Your task to perform on an android device: What is the recent news? Image 0: 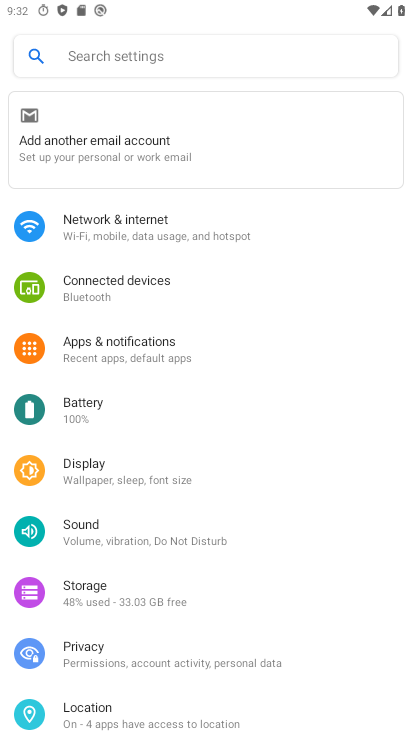
Step 0: press home button
Your task to perform on an android device: What is the recent news? Image 1: 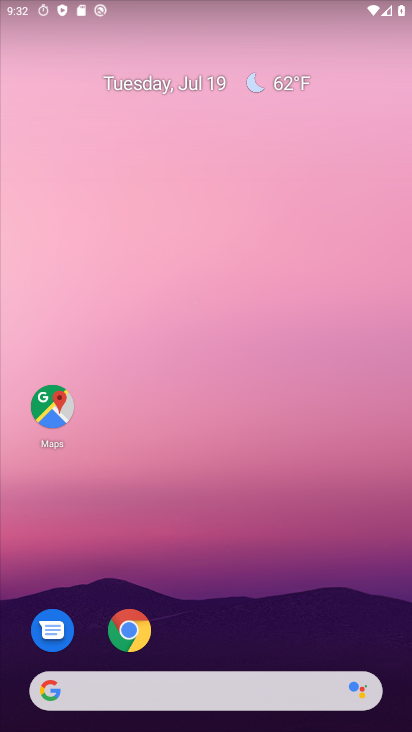
Step 1: drag from (210, 682) to (204, 376)
Your task to perform on an android device: What is the recent news? Image 2: 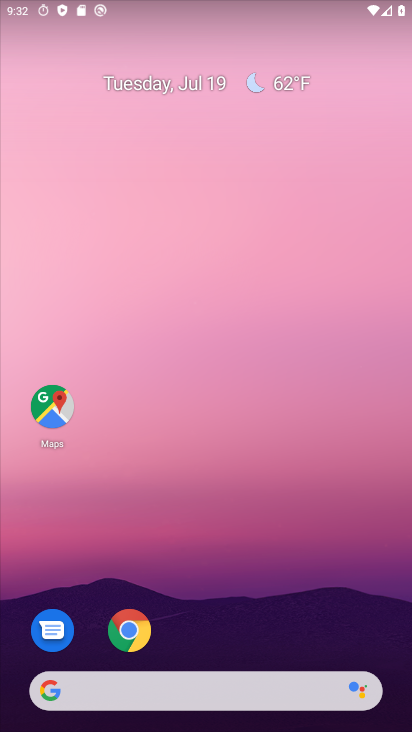
Step 2: drag from (171, 664) to (242, 146)
Your task to perform on an android device: What is the recent news? Image 3: 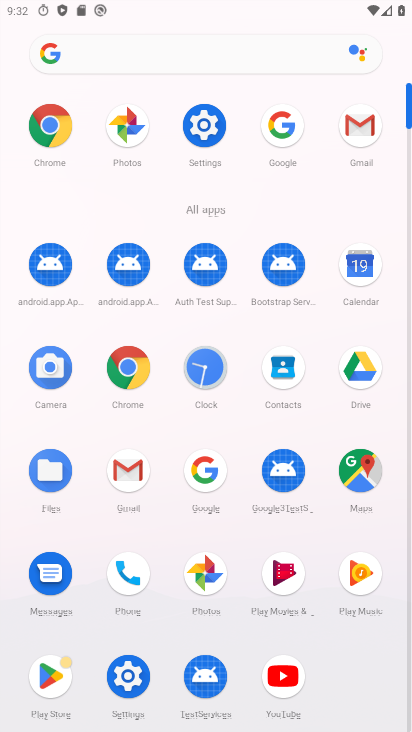
Step 3: click (283, 117)
Your task to perform on an android device: What is the recent news? Image 4: 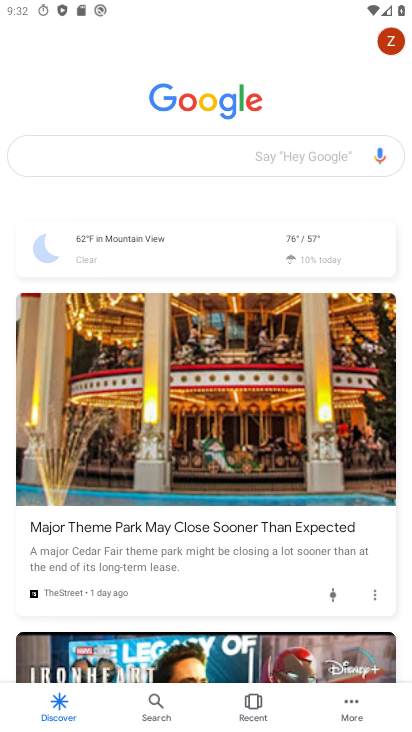
Step 4: click (45, 158)
Your task to perform on an android device: What is the recent news? Image 5: 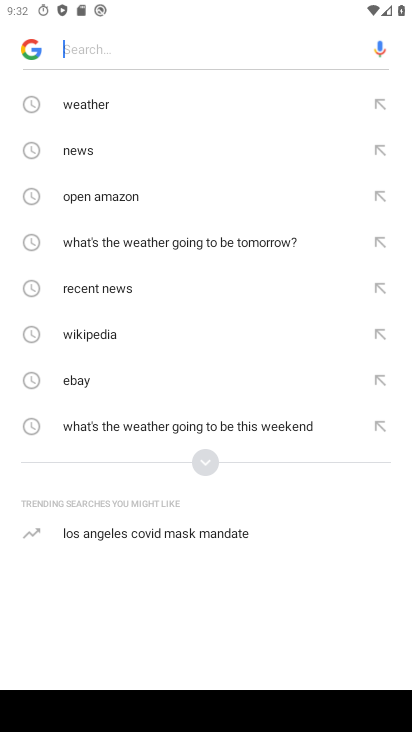
Step 5: click (75, 280)
Your task to perform on an android device: What is the recent news? Image 6: 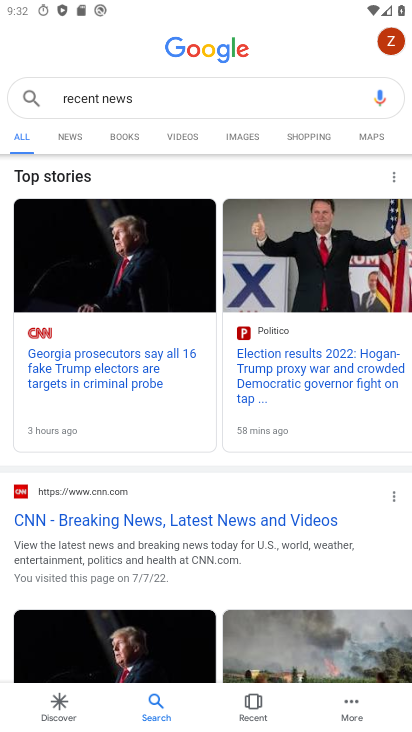
Step 6: click (176, 515)
Your task to perform on an android device: What is the recent news? Image 7: 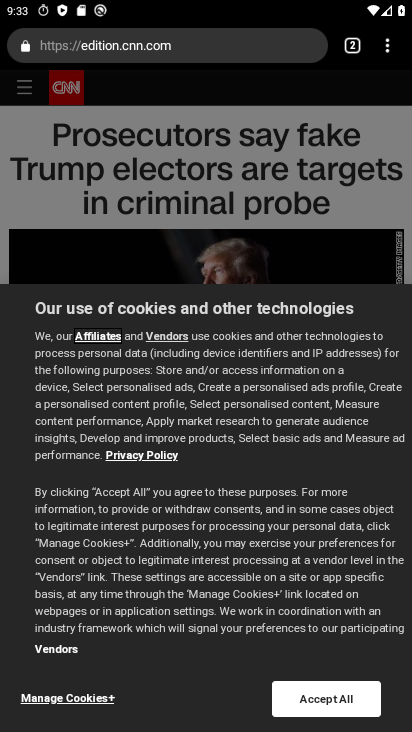
Step 7: task complete